Your task to perform on an android device: Check the latest toasters on Target. Image 0: 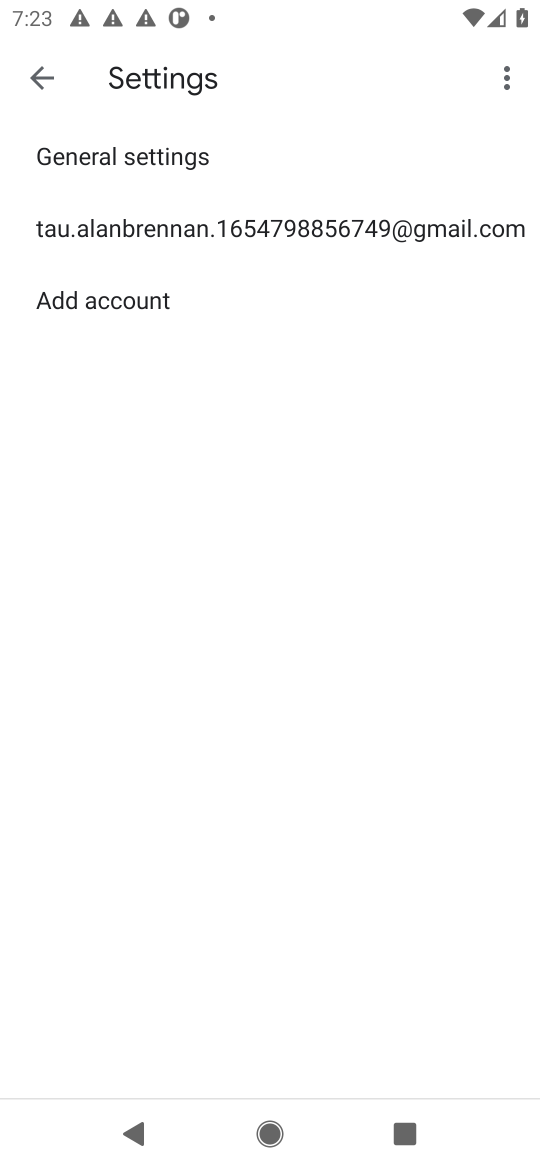
Step 0: press home button
Your task to perform on an android device: Check the latest toasters on Target. Image 1: 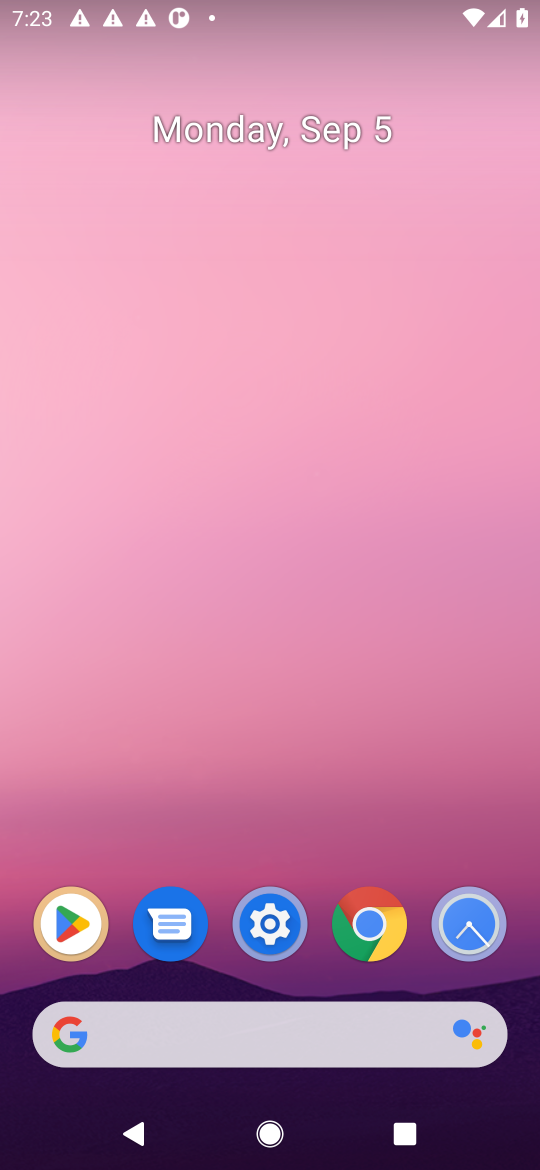
Step 1: click (370, 1025)
Your task to perform on an android device: Check the latest toasters on Target. Image 2: 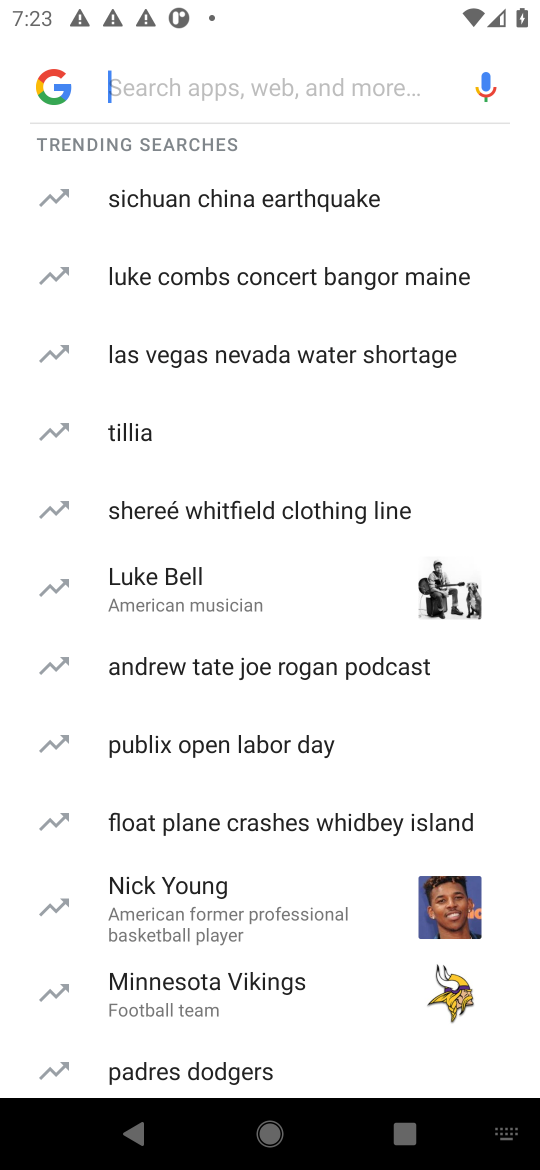
Step 2: press enter
Your task to perform on an android device: Check the latest toasters on Target. Image 3: 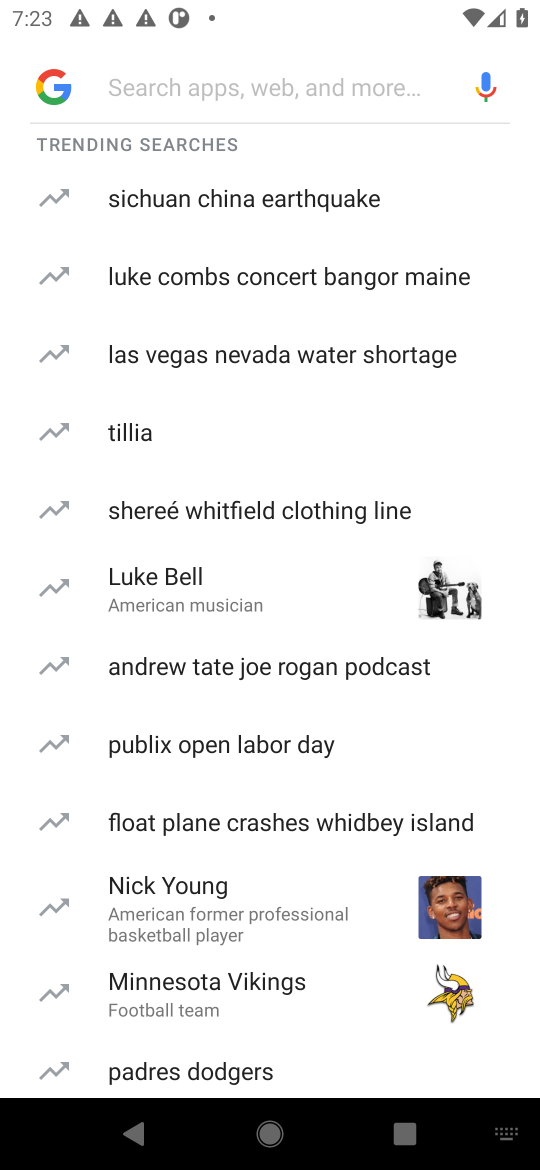
Step 3: type "target"
Your task to perform on an android device: Check the latest toasters on Target. Image 4: 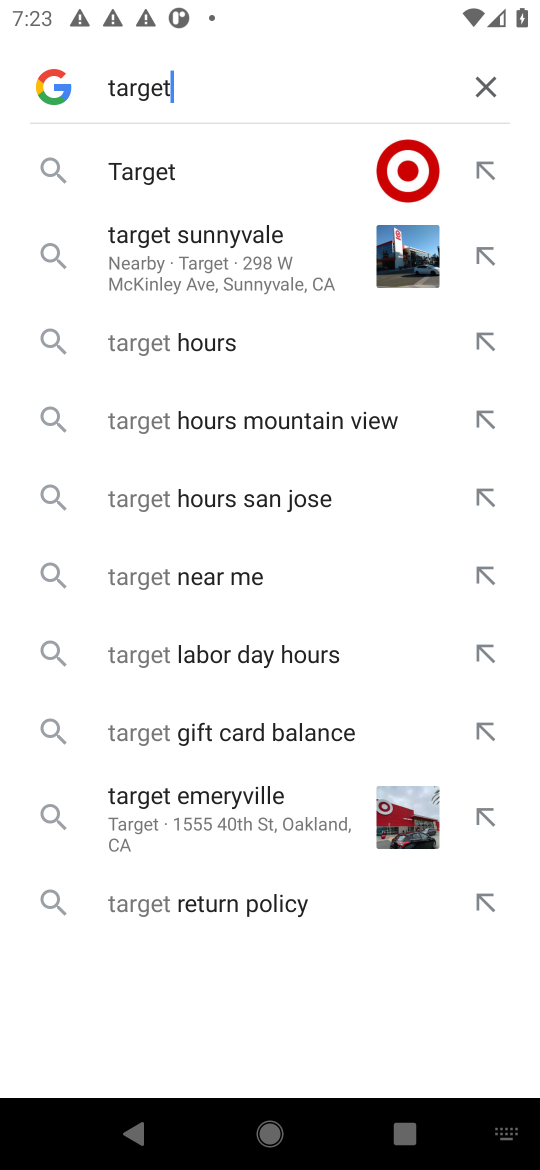
Step 4: click (195, 172)
Your task to perform on an android device: Check the latest toasters on Target. Image 5: 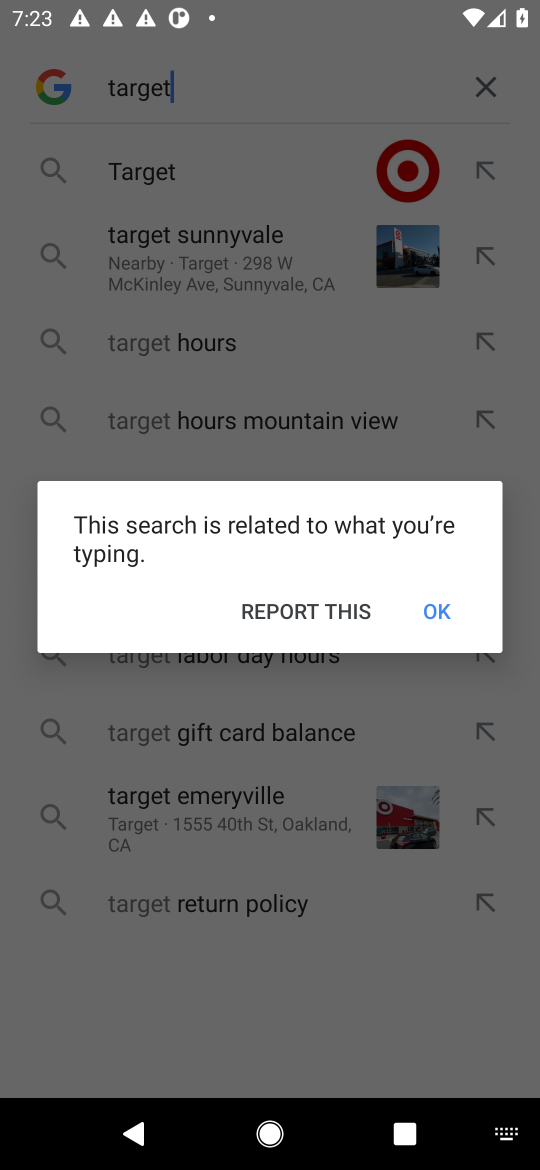
Step 5: click (420, 602)
Your task to perform on an android device: Check the latest toasters on Target. Image 6: 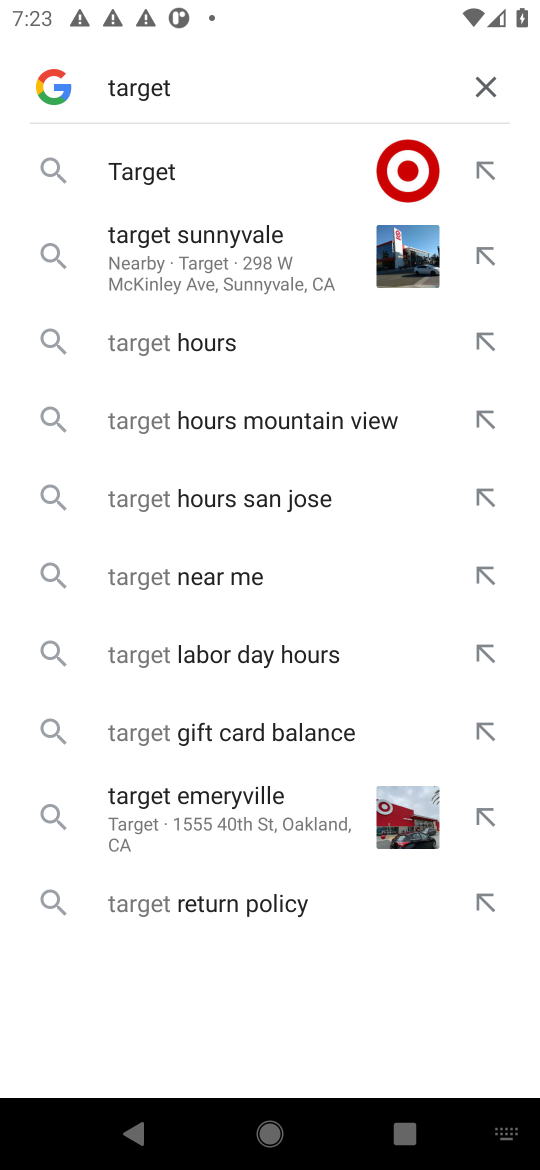
Step 6: click (140, 179)
Your task to perform on an android device: Check the latest toasters on Target. Image 7: 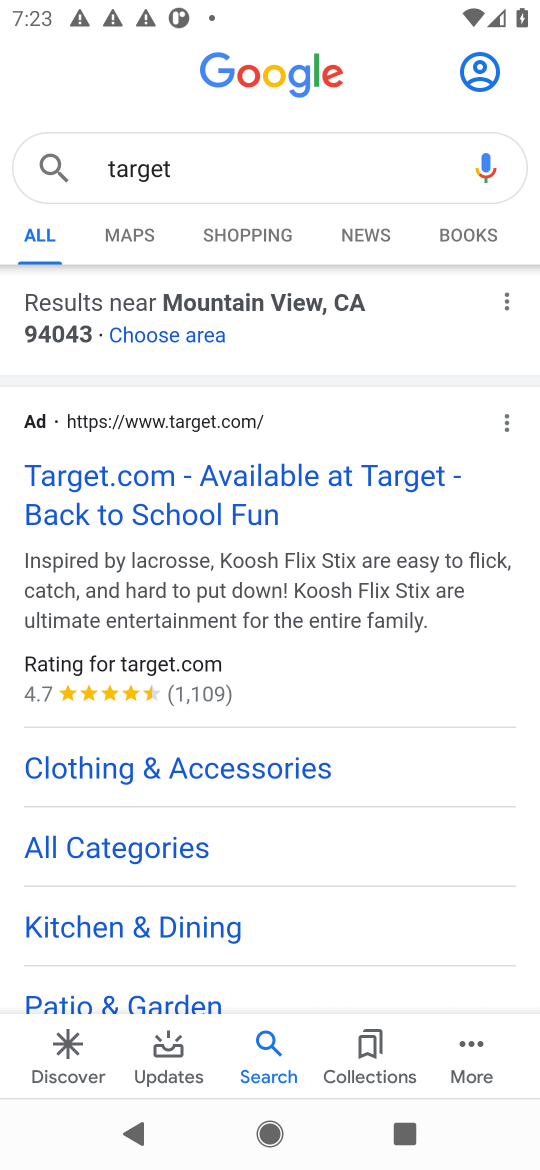
Step 7: click (207, 491)
Your task to perform on an android device: Check the latest toasters on Target. Image 8: 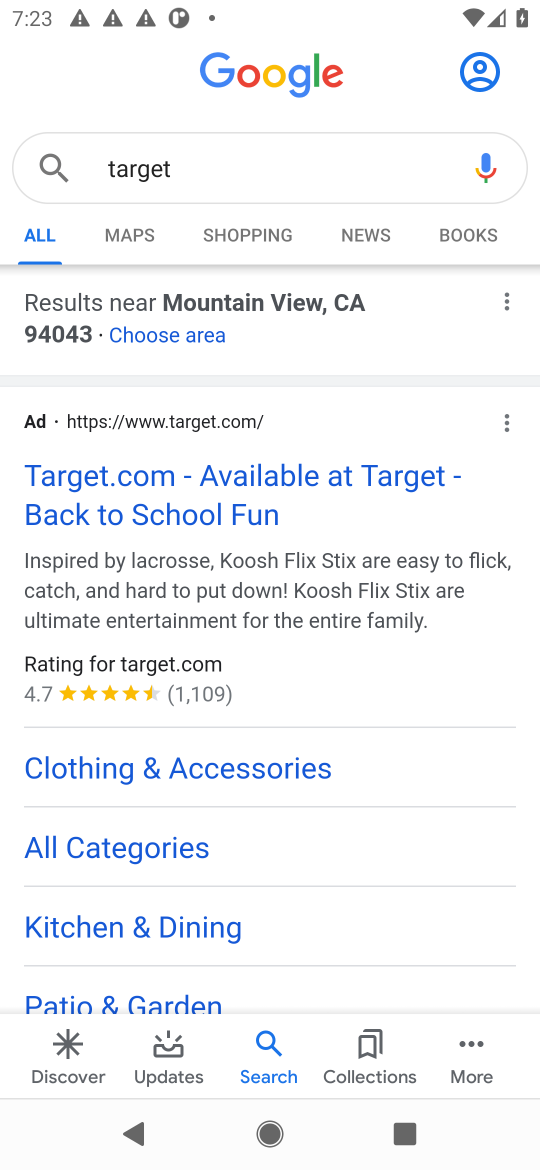
Step 8: click (142, 492)
Your task to perform on an android device: Check the latest toasters on Target. Image 9: 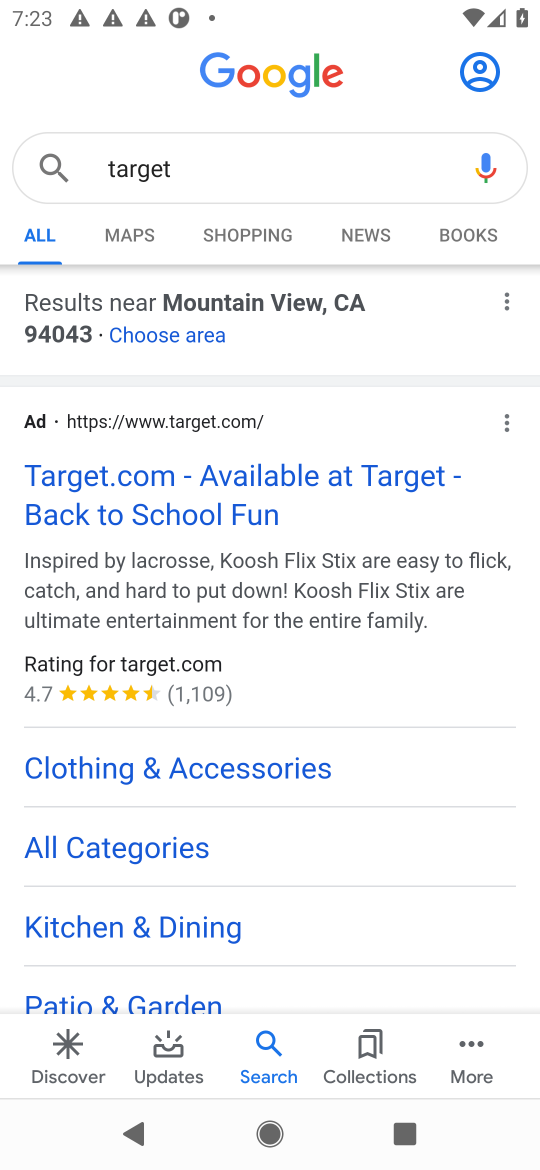
Step 9: click (250, 474)
Your task to perform on an android device: Check the latest toasters on Target. Image 10: 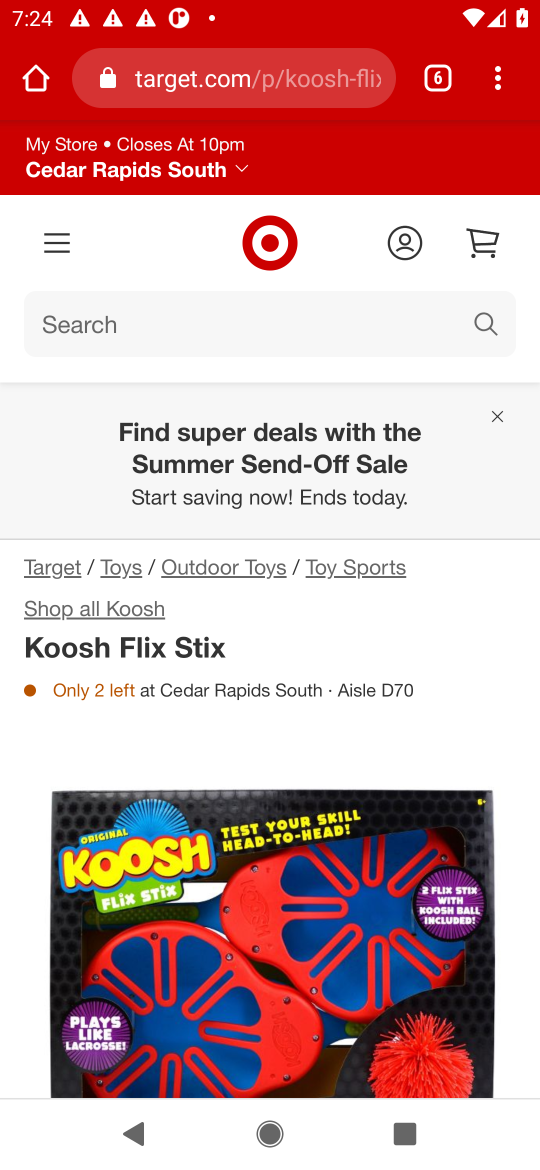
Step 10: click (138, 311)
Your task to perform on an android device: Check the latest toasters on Target. Image 11: 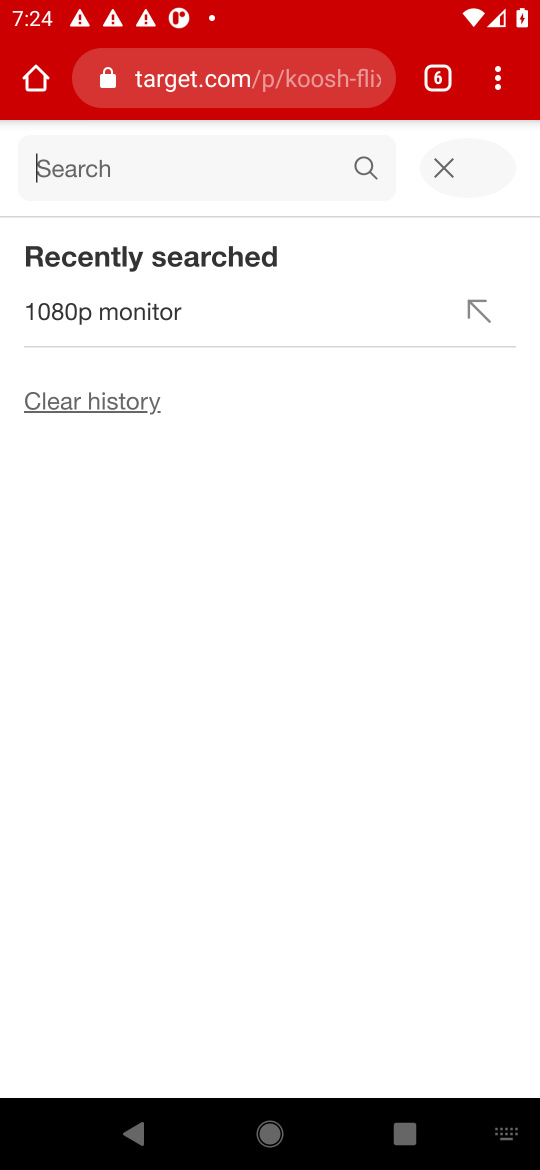
Step 11: type "latest toasters"
Your task to perform on an android device: Check the latest toasters on Target. Image 12: 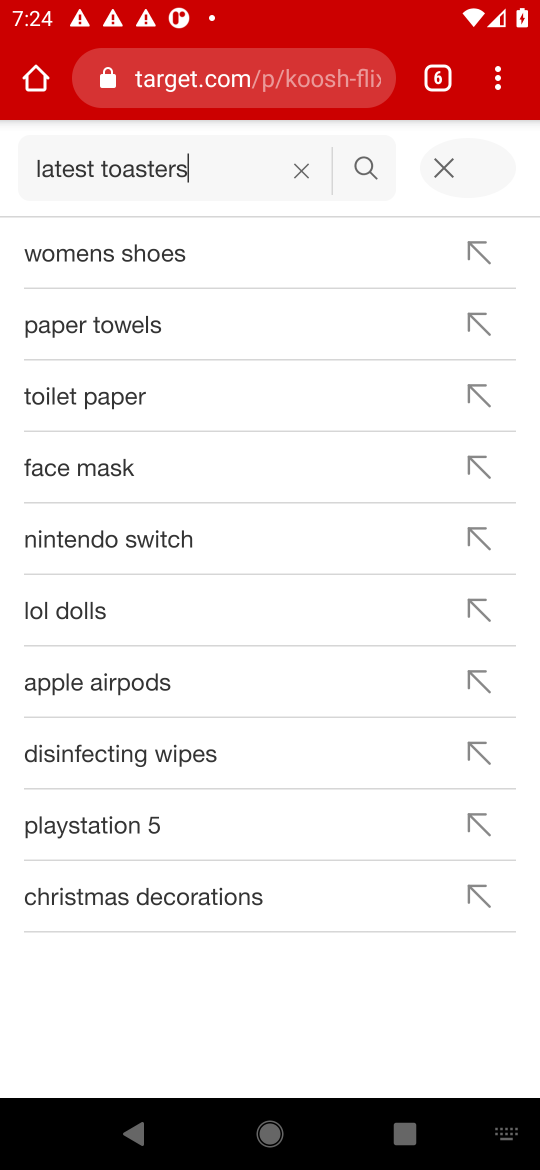
Step 12: press enter
Your task to perform on an android device: Check the latest toasters on Target. Image 13: 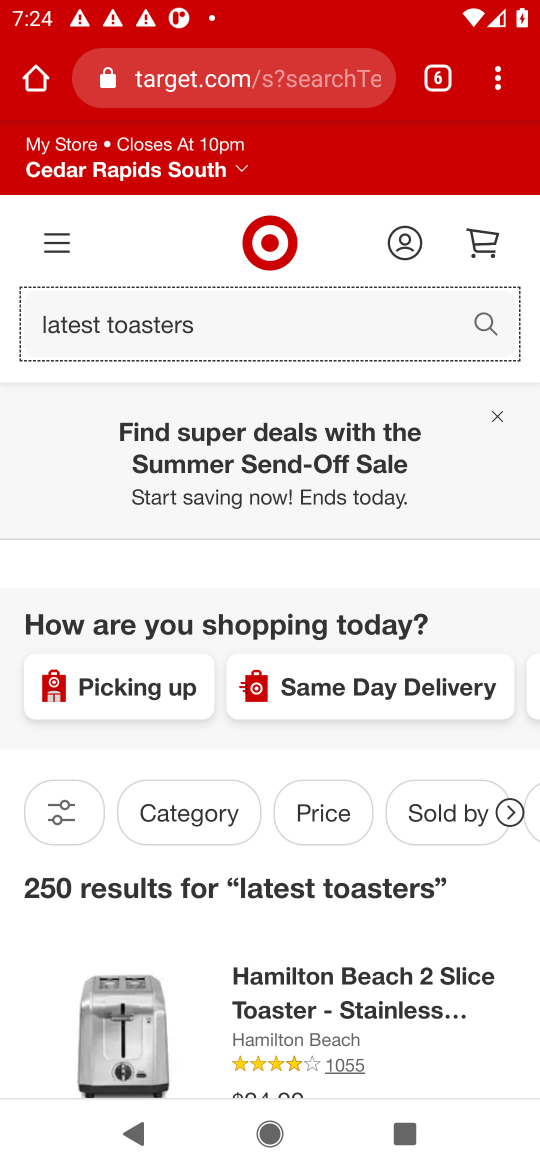
Step 13: task complete